Your task to perform on an android device: Open Maps and search for coffee Image 0: 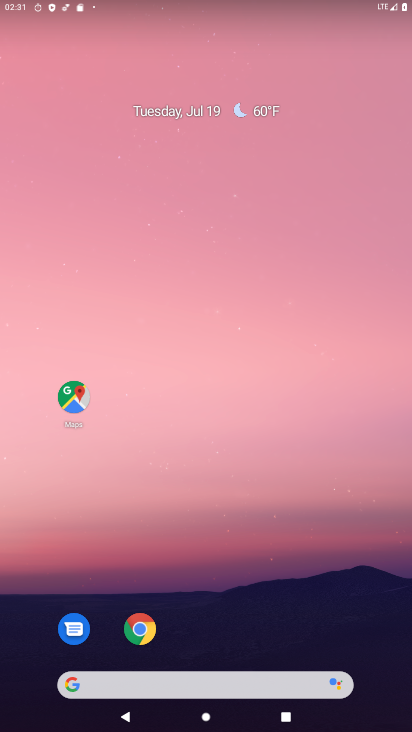
Step 0: click (77, 413)
Your task to perform on an android device: Open Maps and search for coffee Image 1: 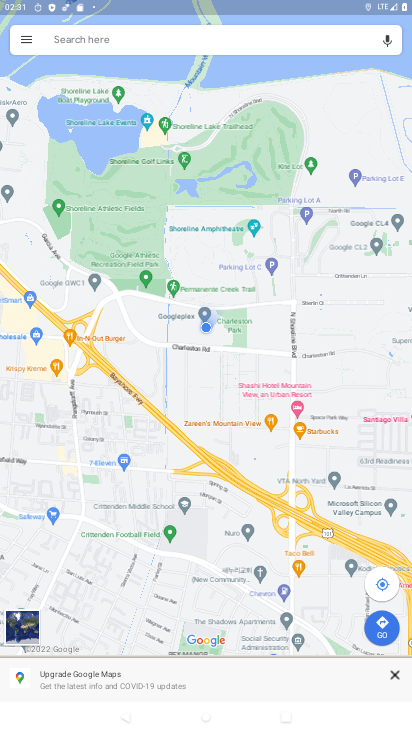
Step 1: click (252, 49)
Your task to perform on an android device: Open Maps and search for coffee Image 2: 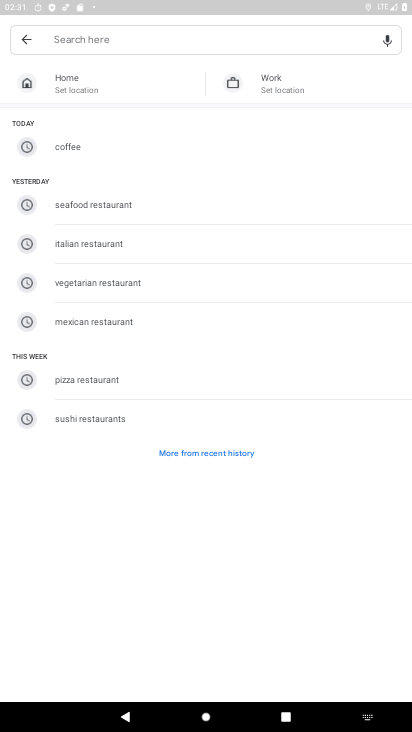
Step 2: type "coffee"
Your task to perform on an android device: Open Maps and search for coffee Image 3: 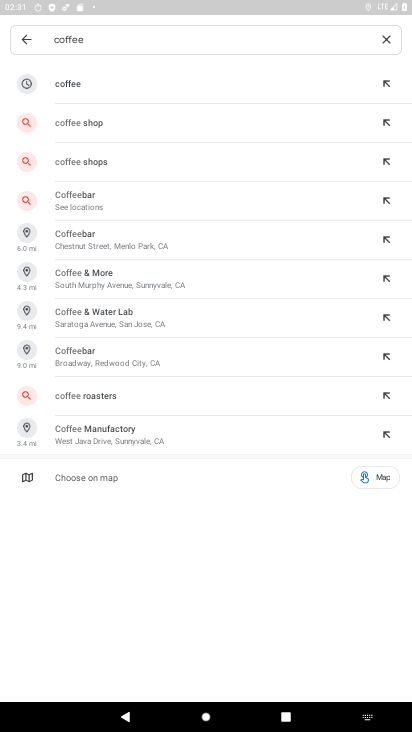
Step 3: click (76, 87)
Your task to perform on an android device: Open Maps and search for coffee Image 4: 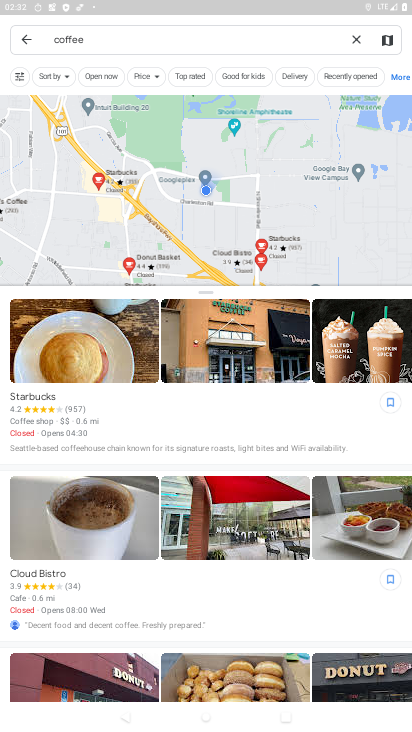
Step 4: task complete